Your task to perform on an android device: toggle notification dots Image 0: 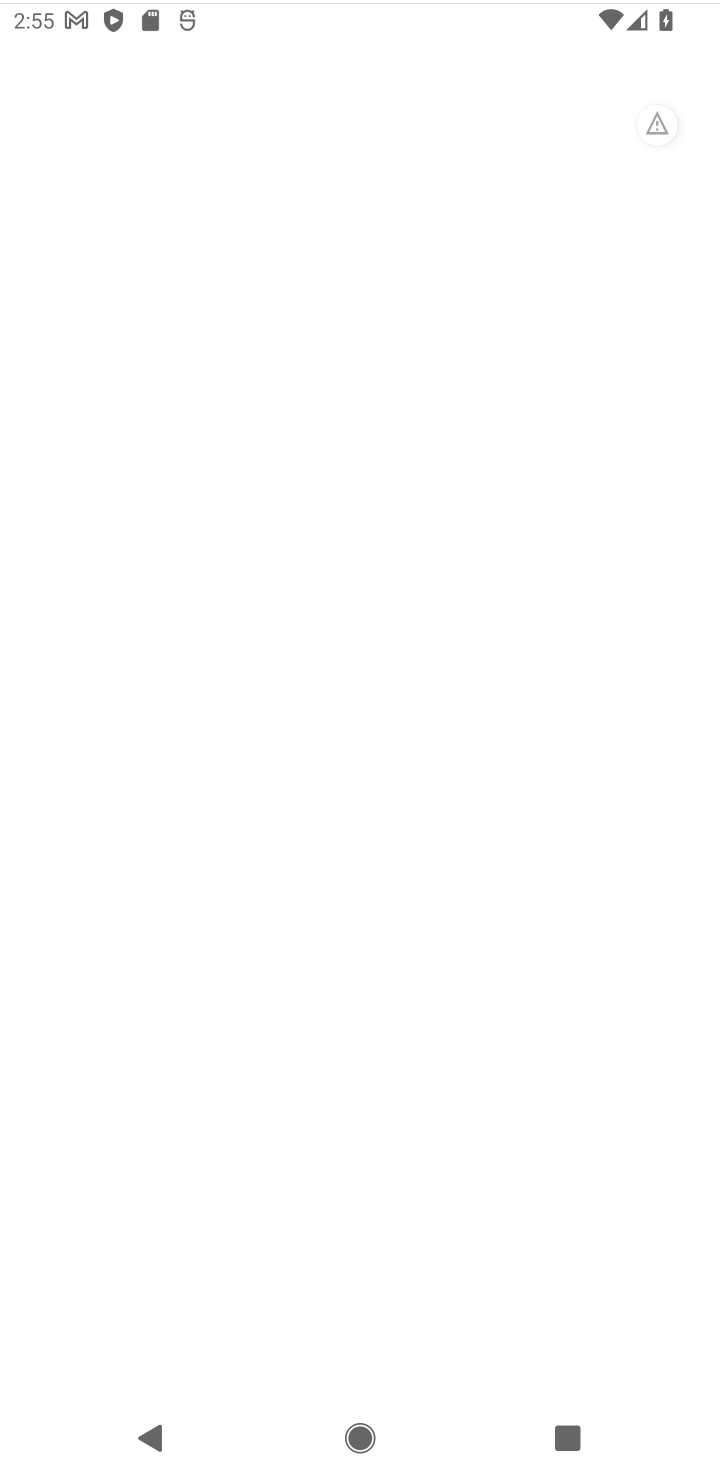
Step 0: press home button
Your task to perform on an android device: toggle notification dots Image 1: 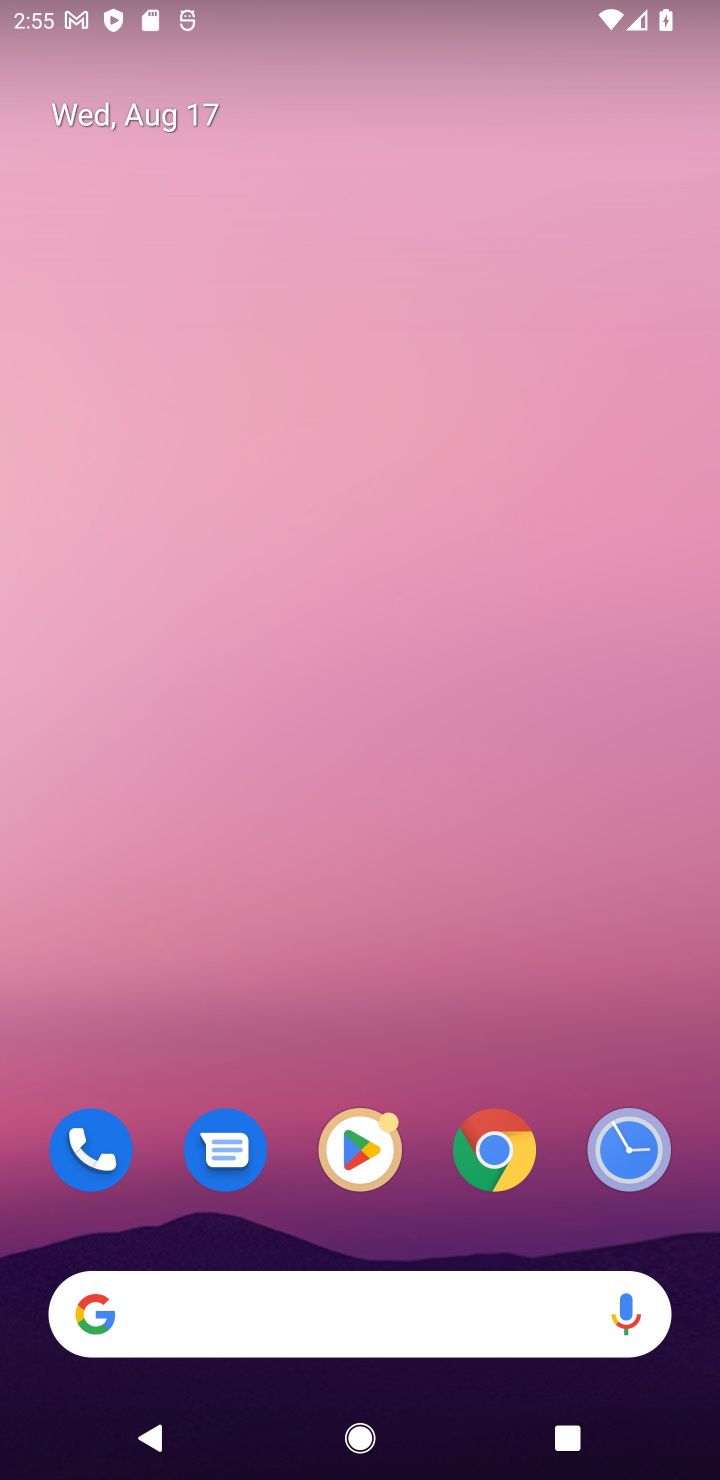
Step 1: drag from (566, 1162) to (25, 813)
Your task to perform on an android device: toggle notification dots Image 2: 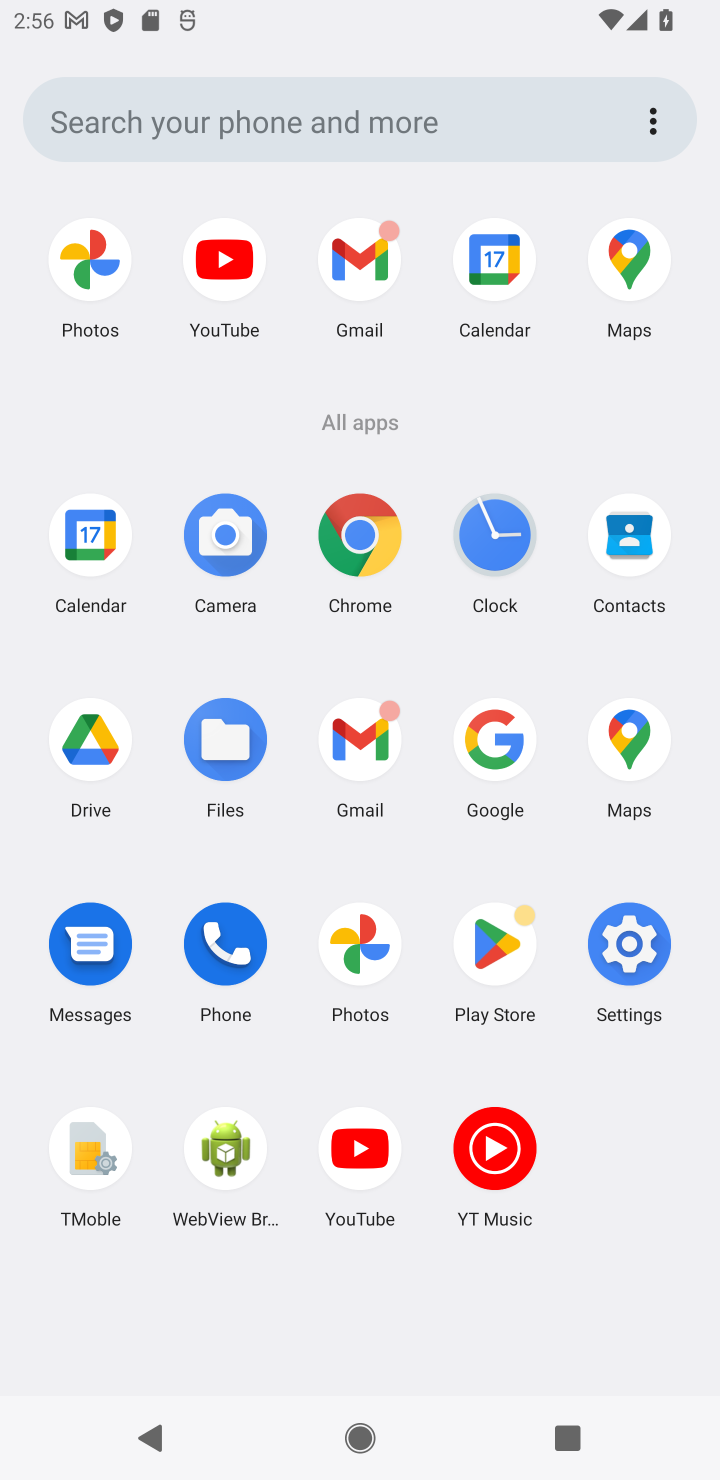
Step 2: click (596, 937)
Your task to perform on an android device: toggle notification dots Image 3: 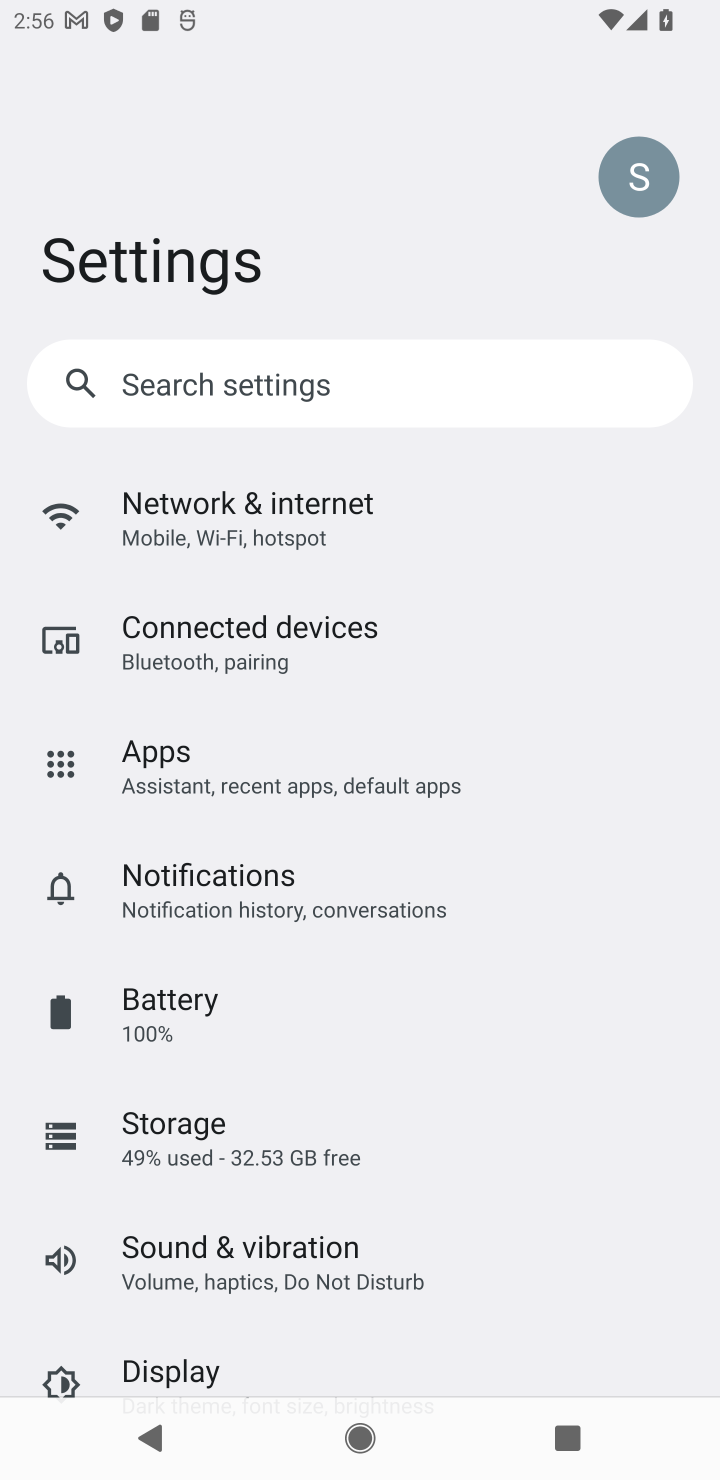
Step 3: click (251, 889)
Your task to perform on an android device: toggle notification dots Image 4: 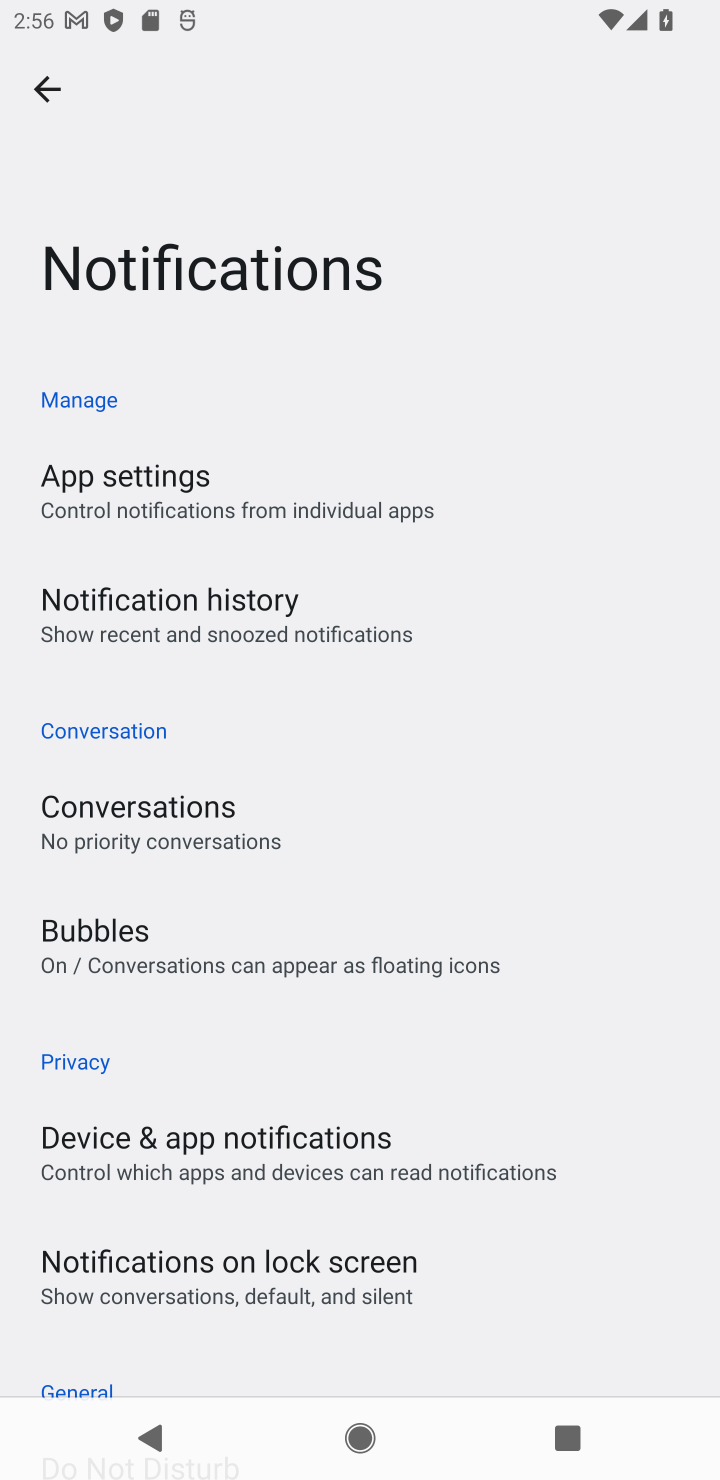
Step 4: drag from (340, 1267) to (407, 35)
Your task to perform on an android device: toggle notification dots Image 5: 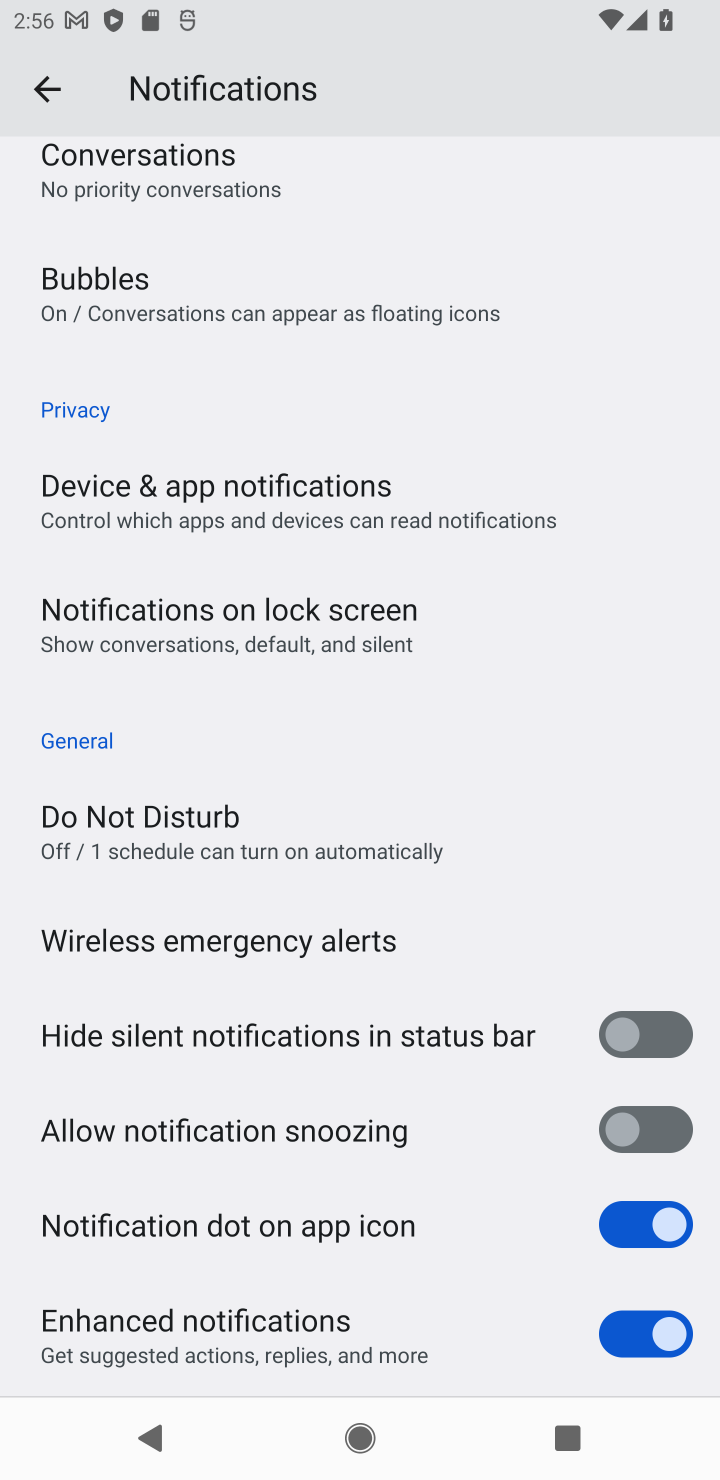
Step 5: drag from (521, 1281) to (456, 78)
Your task to perform on an android device: toggle notification dots Image 6: 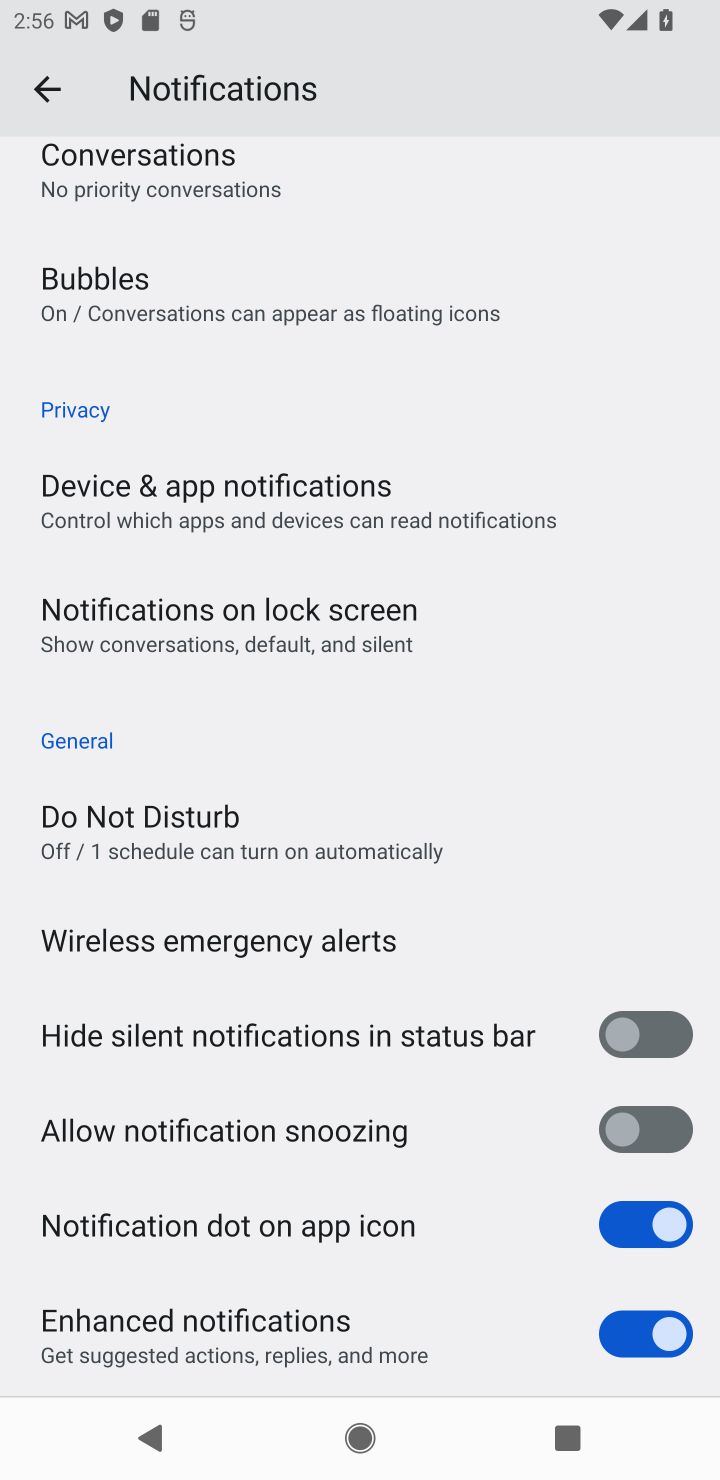
Step 6: click (578, 1226)
Your task to perform on an android device: toggle notification dots Image 7: 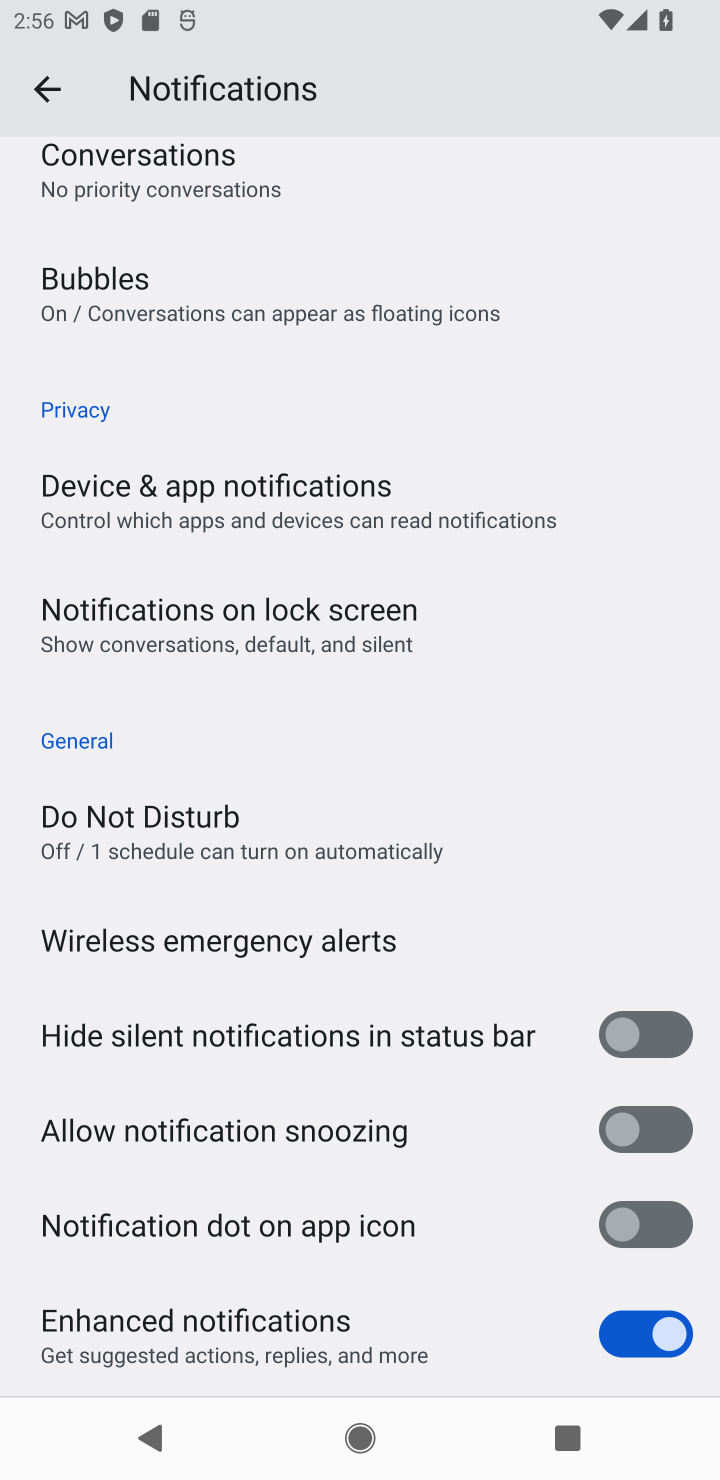
Step 7: task complete